Your task to perform on an android device: make emails show in primary in the gmail app Image 0: 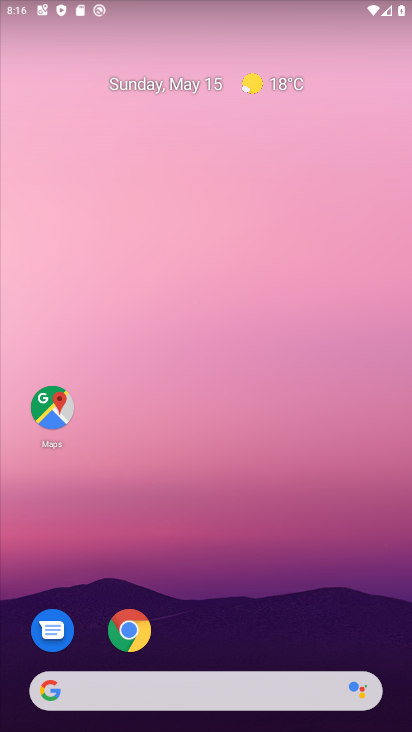
Step 0: drag from (208, 630) to (293, 197)
Your task to perform on an android device: make emails show in primary in the gmail app Image 1: 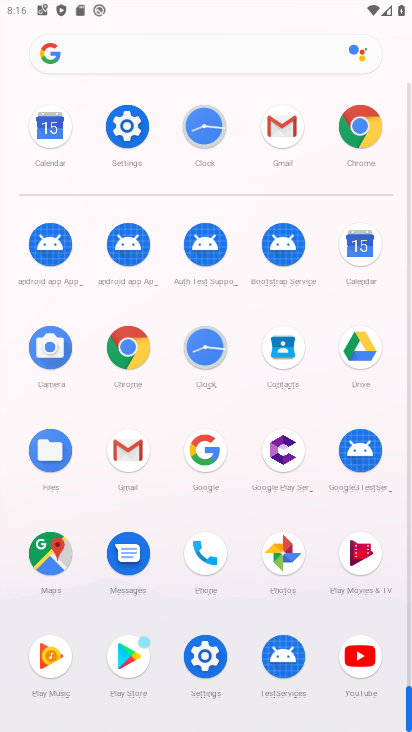
Step 1: click (121, 449)
Your task to perform on an android device: make emails show in primary in the gmail app Image 2: 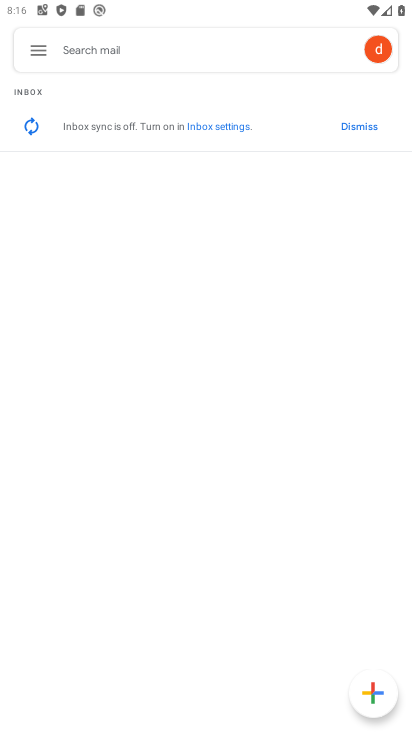
Step 2: click (207, 482)
Your task to perform on an android device: make emails show in primary in the gmail app Image 3: 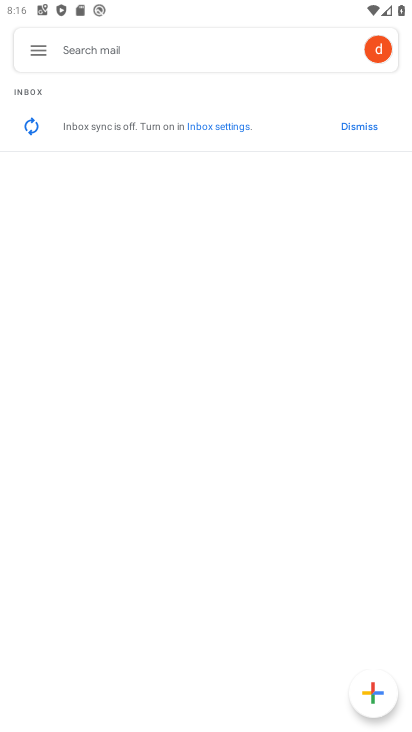
Step 3: click (36, 57)
Your task to perform on an android device: make emails show in primary in the gmail app Image 4: 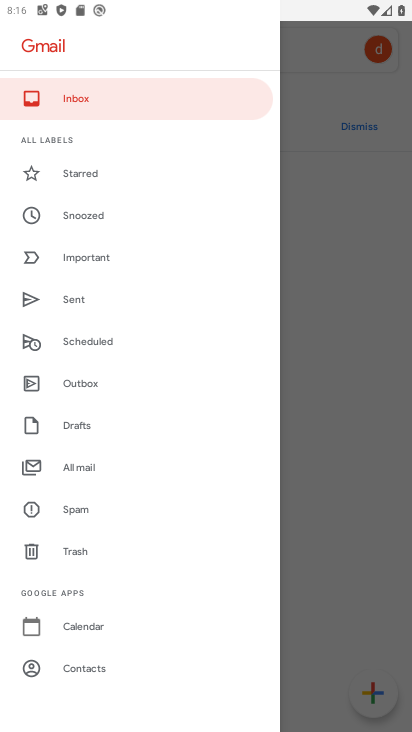
Step 4: drag from (211, 661) to (206, 254)
Your task to perform on an android device: make emails show in primary in the gmail app Image 5: 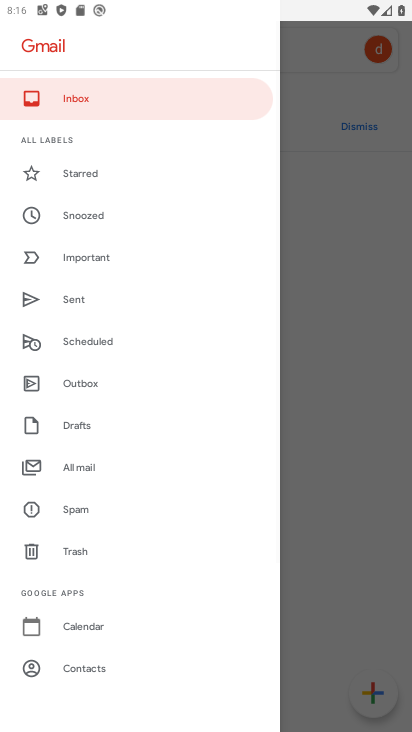
Step 5: drag from (91, 604) to (157, 272)
Your task to perform on an android device: make emails show in primary in the gmail app Image 6: 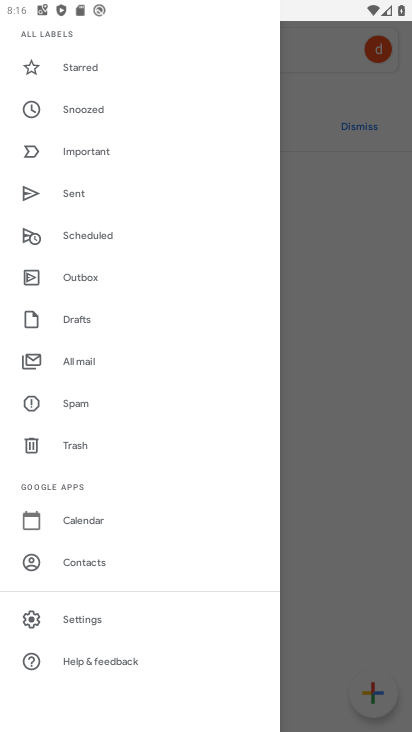
Step 6: drag from (162, 233) to (280, 712)
Your task to perform on an android device: make emails show in primary in the gmail app Image 7: 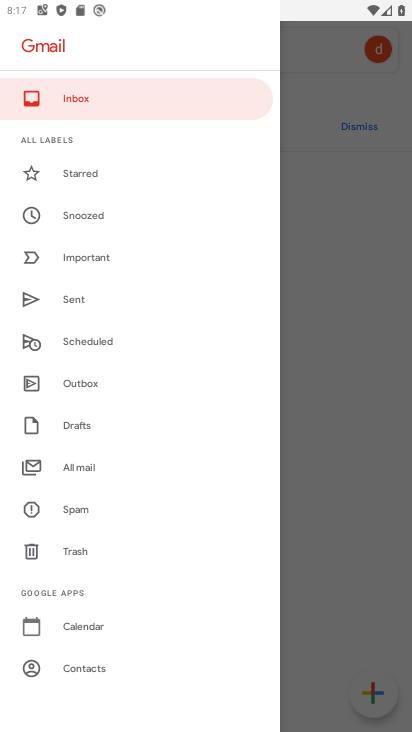
Step 7: click (62, 92)
Your task to perform on an android device: make emails show in primary in the gmail app Image 8: 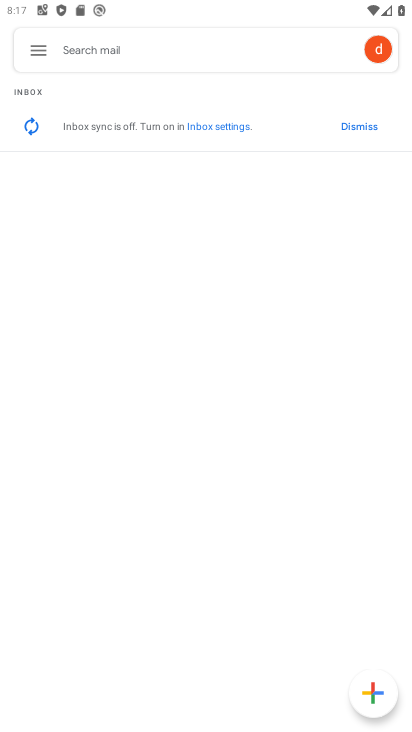
Step 8: task complete